Your task to perform on an android device: change the clock display to show seconds Image 0: 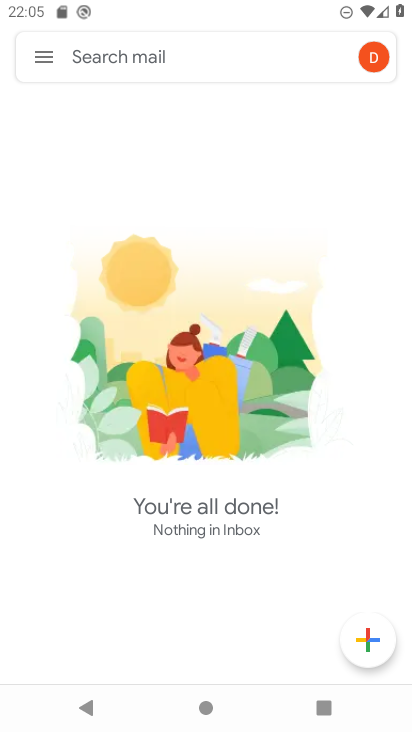
Step 0: press home button
Your task to perform on an android device: change the clock display to show seconds Image 1: 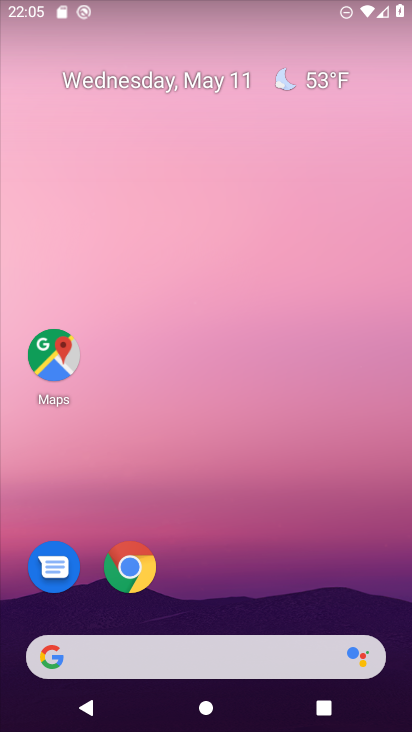
Step 1: drag from (271, 685) to (220, 92)
Your task to perform on an android device: change the clock display to show seconds Image 2: 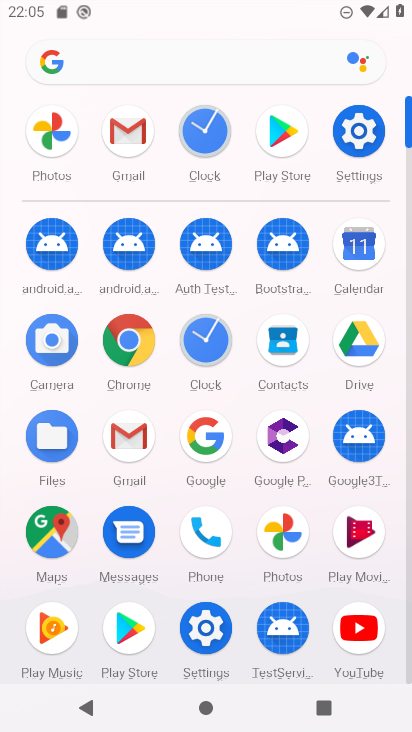
Step 2: click (202, 350)
Your task to perform on an android device: change the clock display to show seconds Image 3: 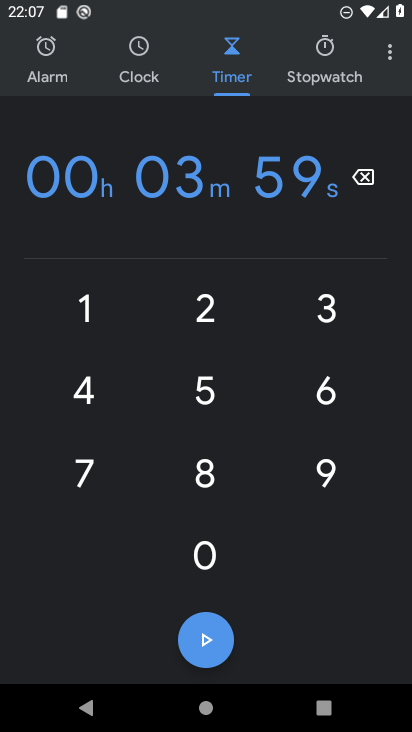
Step 3: click (386, 55)
Your task to perform on an android device: change the clock display to show seconds Image 4: 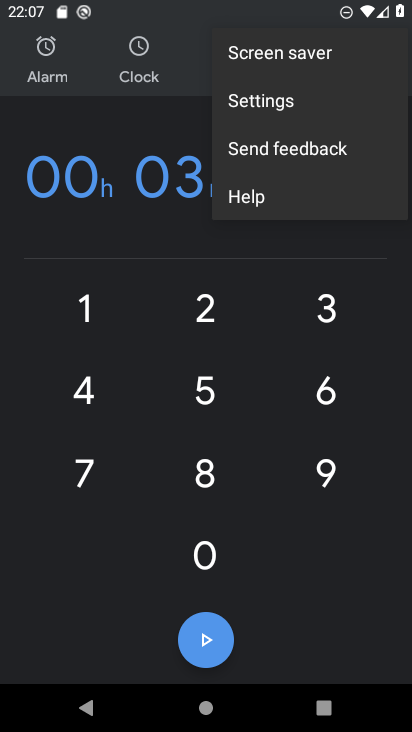
Step 4: click (280, 113)
Your task to perform on an android device: change the clock display to show seconds Image 5: 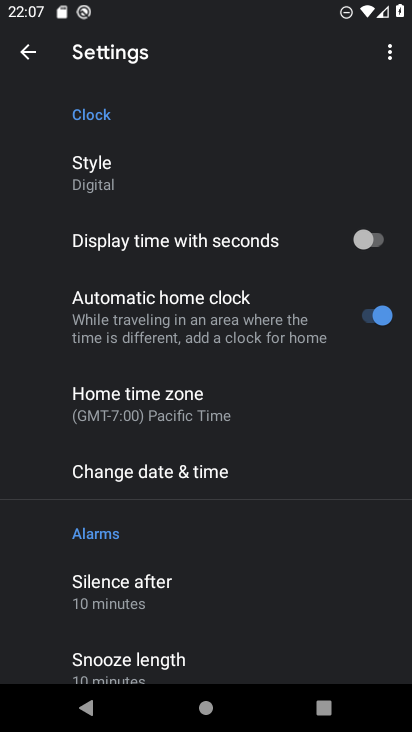
Step 5: drag from (281, 572) to (294, 183)
Your task to perform on an android device: change the clock display to show seconds Image 6: 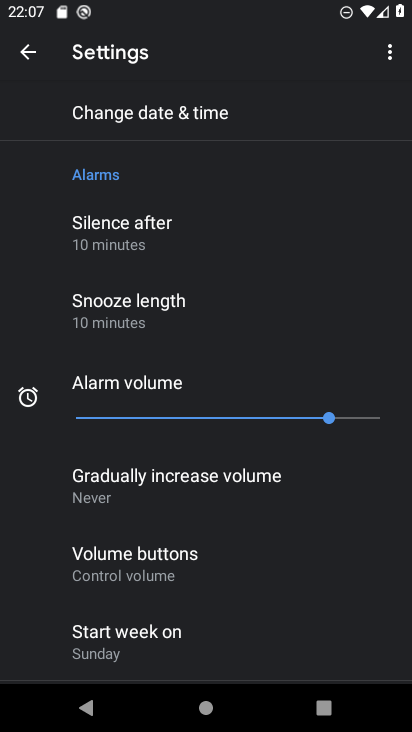
Step 6: drag from (257, 199) to (260, 556)
Your task to perform on an android device: change the clock display to show seconds Image 7: 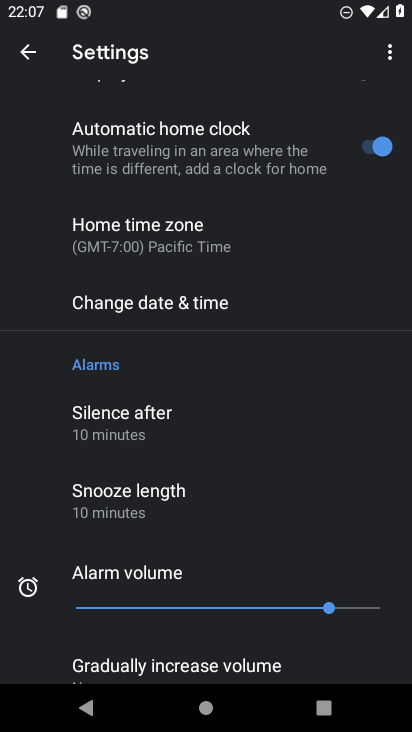
Step 7: drag from (324, 125) to (286, 561)
Your task to perform on an android device: change the clock display to show seconds Image 8: 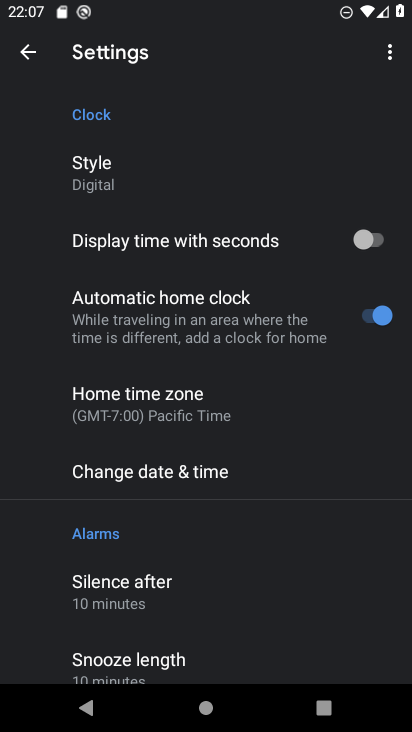
Step 8: click (348, 235)
Your task to perform on an android device: change the clock display to show seconds Image 9: 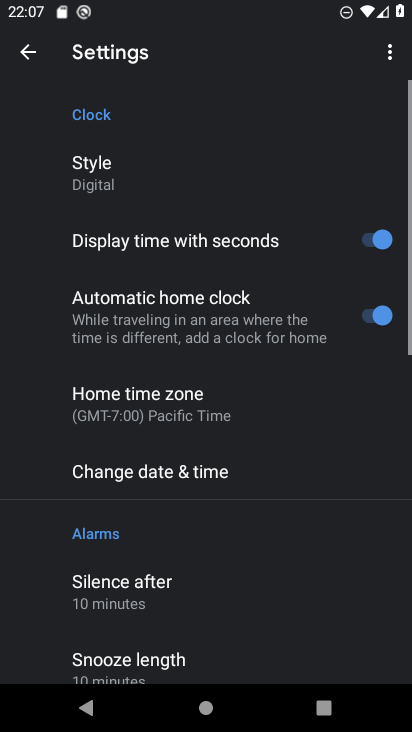
Step 9: task complete